Your task to perform on an android device: open wifi settings Image 0: 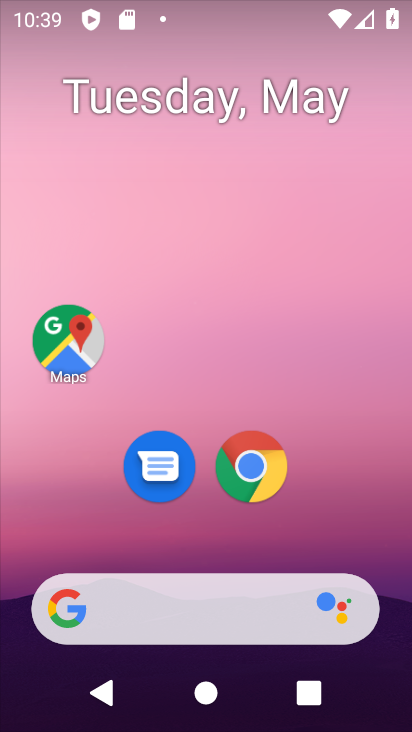
Step 0: drag from (367, 558) to (283, 130)
Your task to perform on an android device: open wifi settings Image 1: 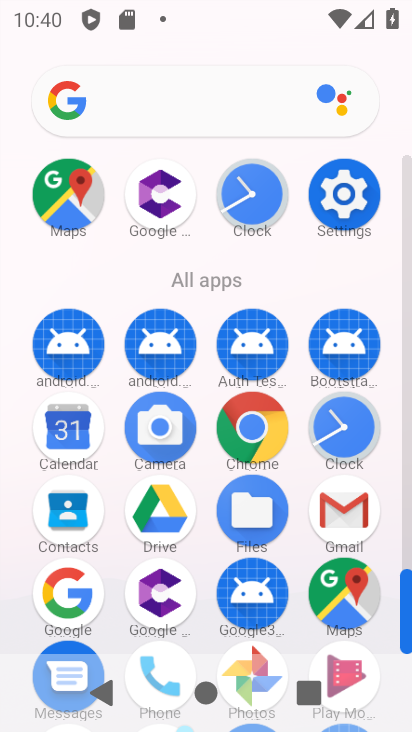
Step 1: click (352, 208)
Your task to perform on an android device: open wifi settings Image 2: 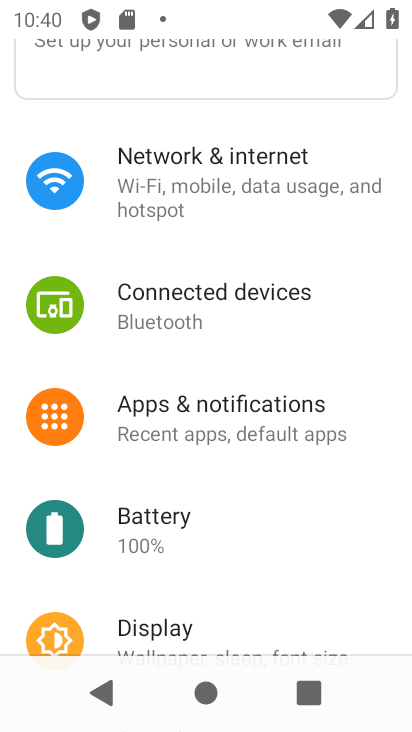
Step 2: click (260, 174)
Your task to perform on an android device: open wifi settings Image 3: 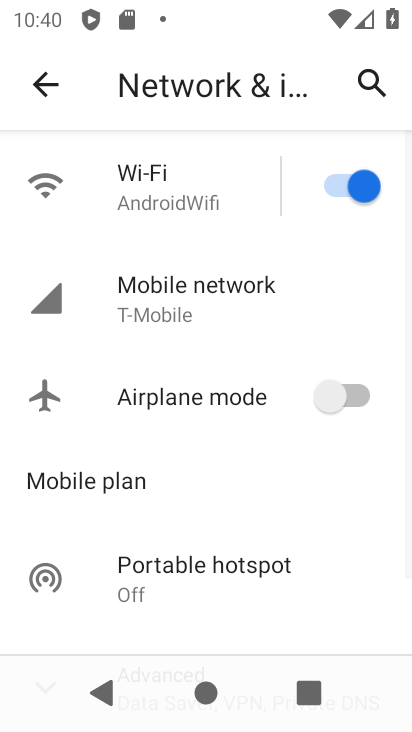
Step 3: click (200, 190)
Your task to perform on an android device: open wifi settings Image 4: 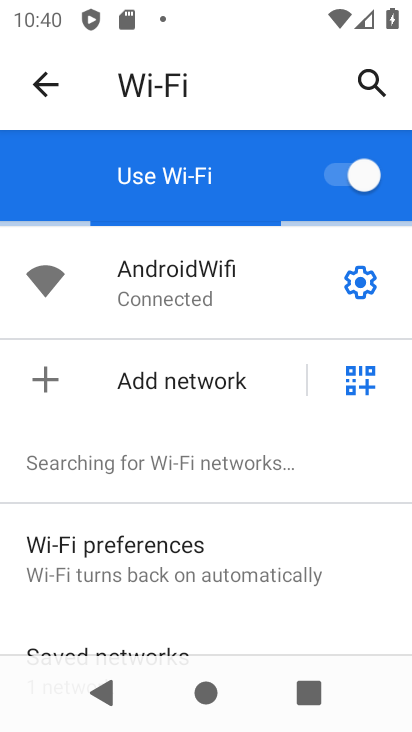
Step 4: task complete